Your task to perform on an android device: turn on the 12-hour format for clock Image 0: 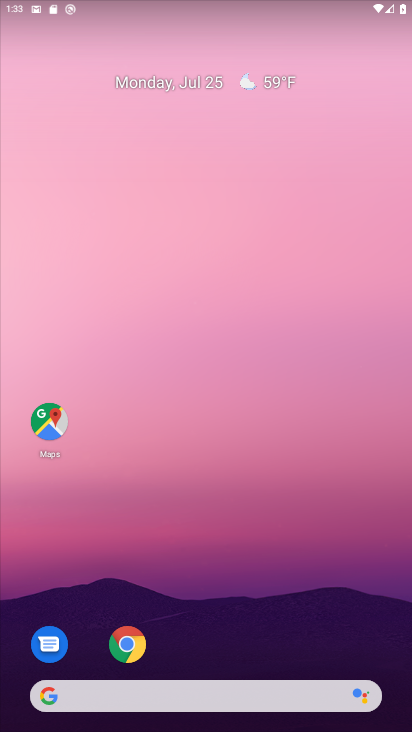
Step 0: click (302, 448)
Your task to perform on an android device: turn on the 12-hour format for clock Image 1: 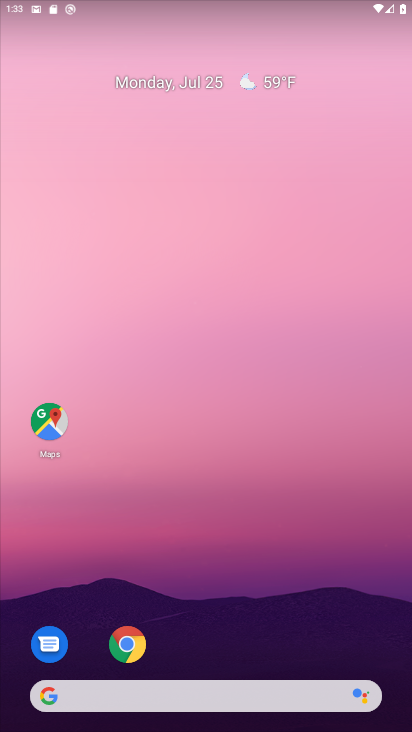
Step 1: drag from (387, 705) to (382, 325)
Your task to perform on an android device: turn on the 12-hour format for clock Image 2: 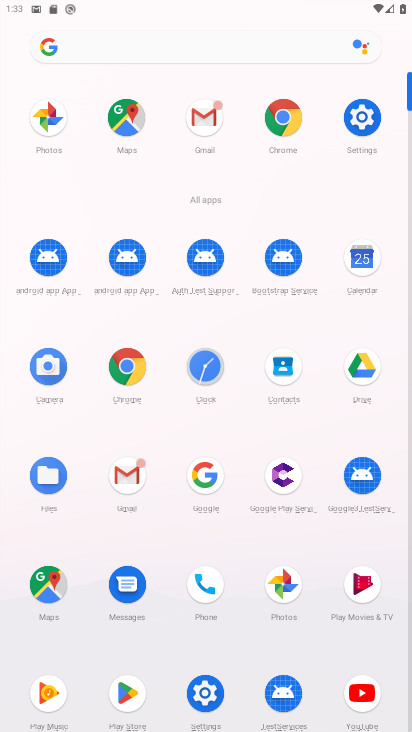
Step 2: click (202, 370)
Your task to perform on an android device: turn on the 12-hour format for clock Image 3: 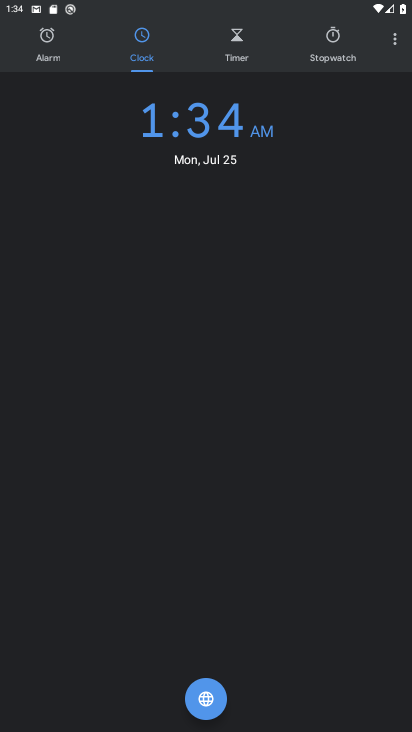
Step 3: click (394, 40)
Your task to perform on an android device: turn on the 12-hour format for clock Image 4: 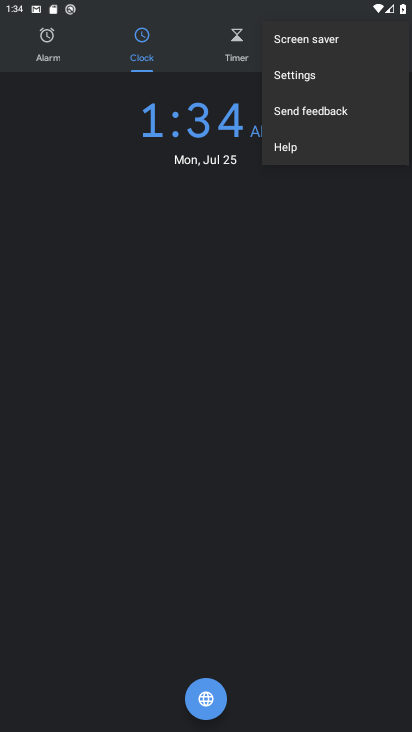
Step 4: click (297, 76)
Your task to perform on an android device: turn on the 12-hour format for clock Image 5: 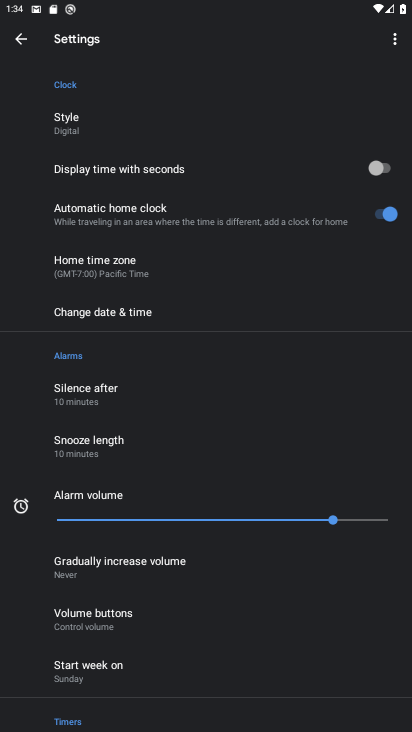
Step 5: click (118, 307)
Your task to perform on an android device: turn on the 12-hour format for clock Image 6: 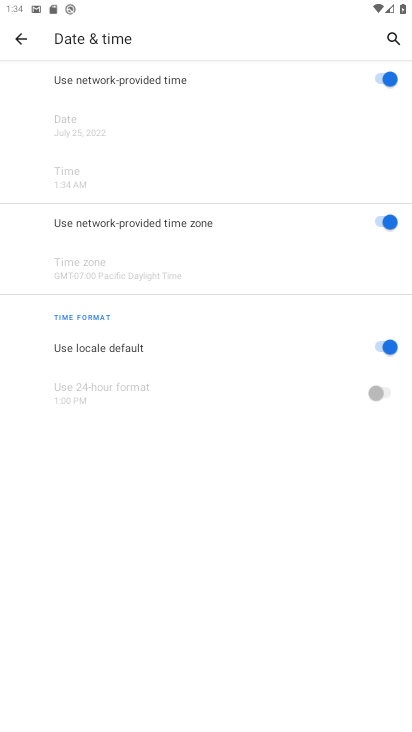
Step 6: task complete